Your task to perform on an android device: open the mobile data screen to see how much data has been used Image 0: 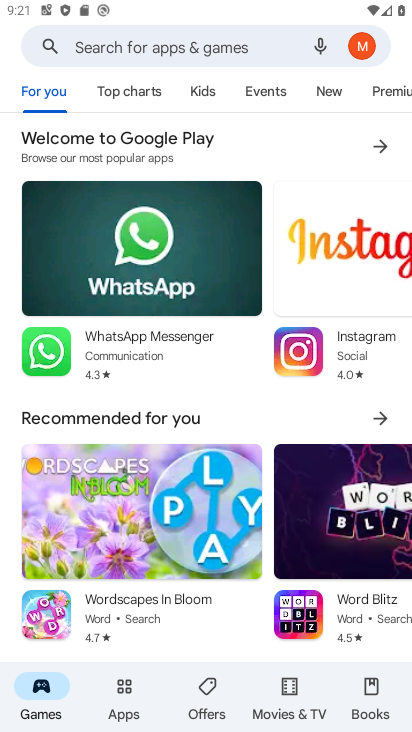
Step 0: press home button
Your task to perform on an android device: open the mobile data screen to see how much data has been used Image 1: 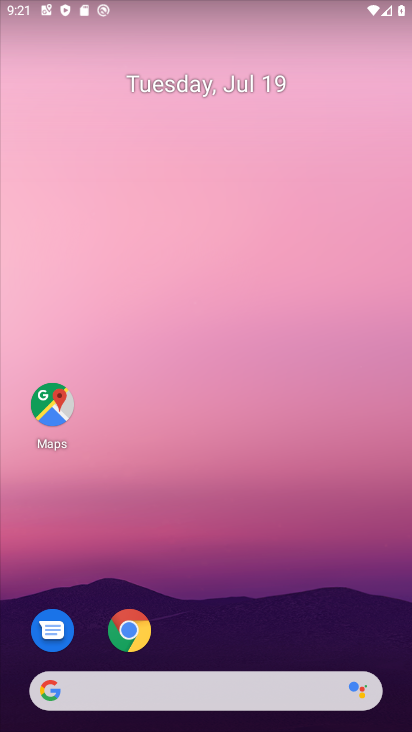
Step 1: drag from (178, 643) to (205, 102)
Your task to perform on an android device: open the mobile data screen to see how much data has been used Image 2: 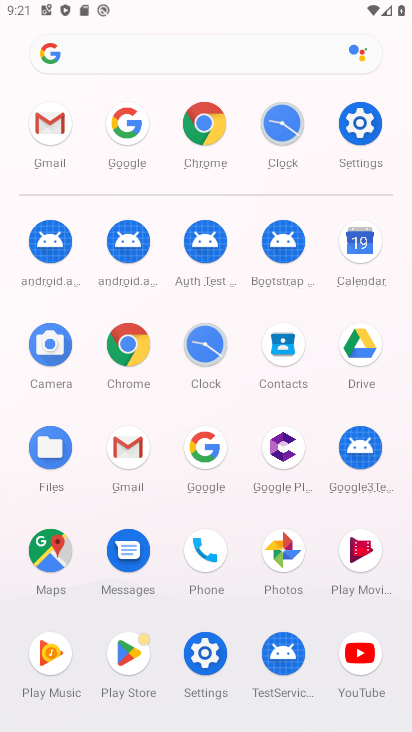
Step 2: click (363, 117)
Your task to perform on an android device: open the mobile data screen to see how much data has been used Image 3: 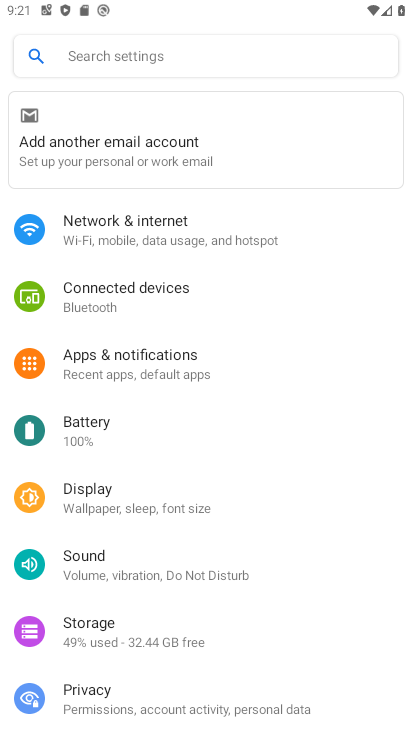
Step 3: click (183, 226)
Your task to perform on an android device: open the mobile data screen to see how much data has been used Image 4: 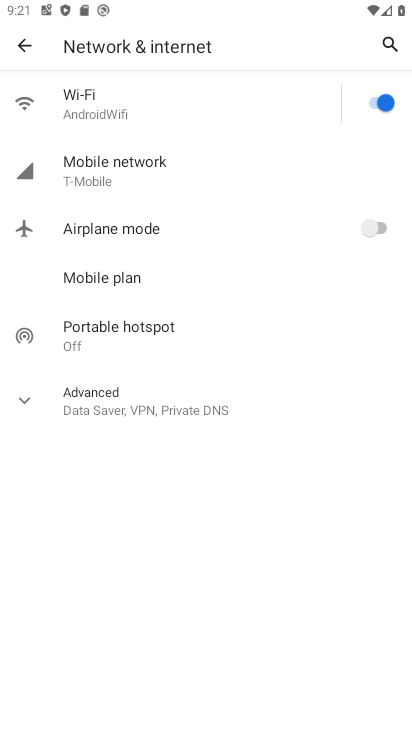
Step 4: click (90, 175)
Your task to perform on an android device: open the mobile data screen to see how much data has been used Image 5: 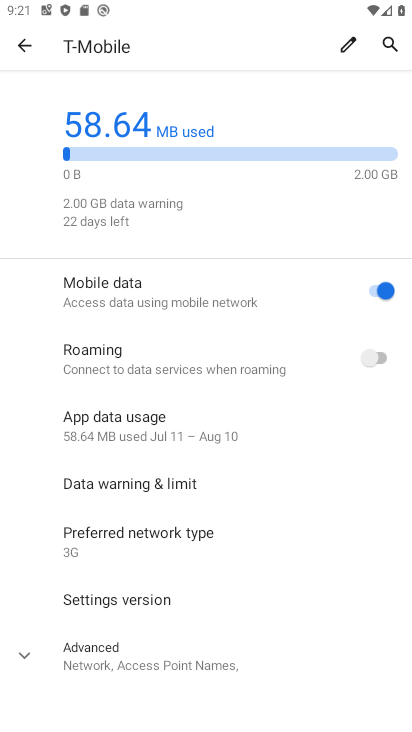
Step 5: task complete